Your task to perform on an android device: Go to eBay Image 0: 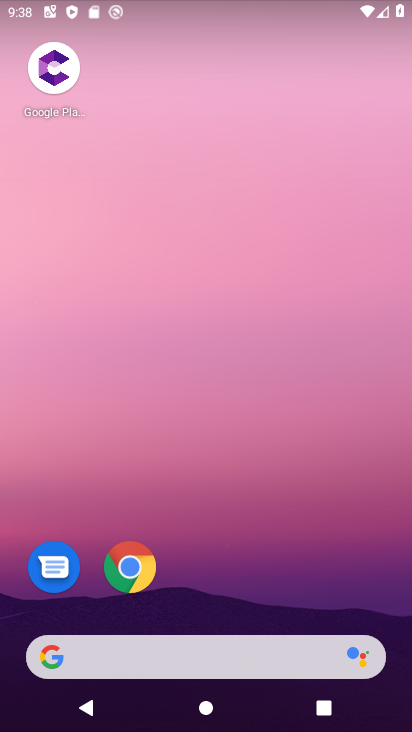
Step 0: click (157, 651)
Your task to perform on an android device: Go to eBay Image 1: 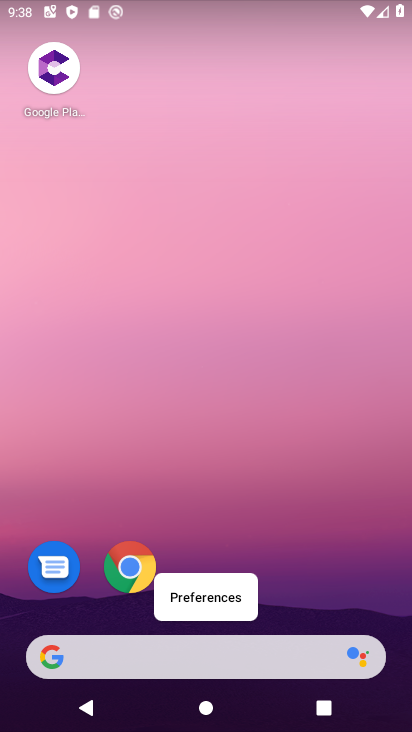
Step 1: click (142, 661)
Your task to perform on an android device: Go to eBay Image 2: 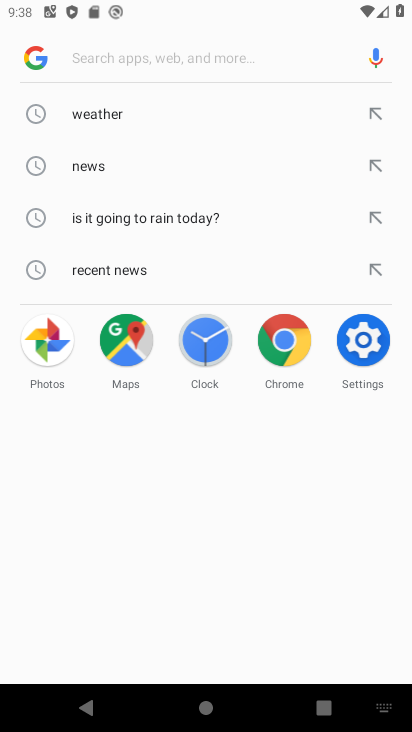
Step 2: type "ebay"
Your task to perform on an android device: Go to eBay Image 3: 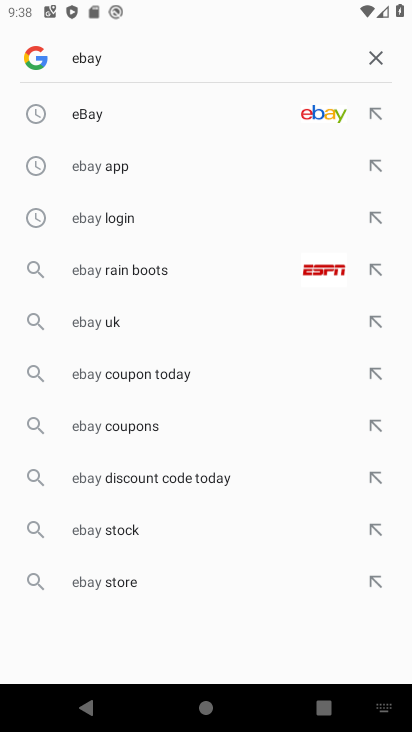
Step 3: click (251, 126)
Your task to perform on an android device: Go to eBay Image 4: 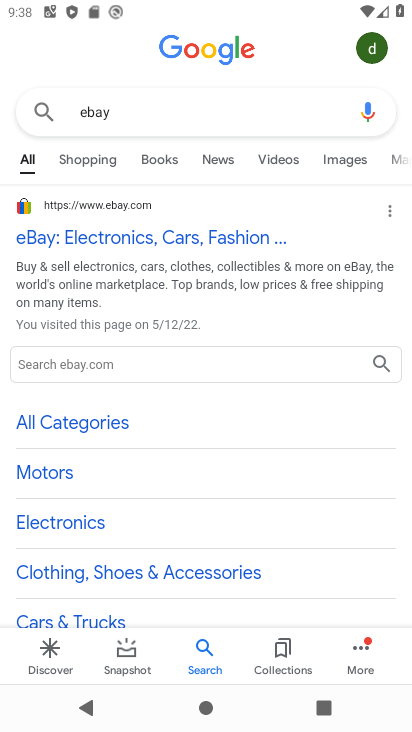
Step 4: task complete